Your task to perform on an android device: clear all cookies in the chrome app Image 0: 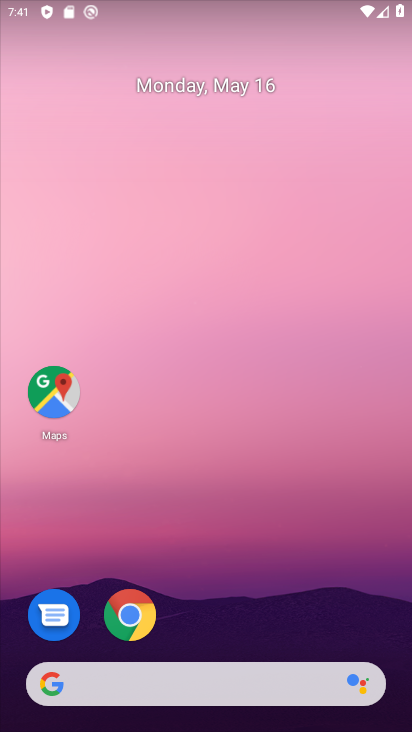
Step 0: drag from (256, 661) to (284, 45)
Your task to perform on an android device: clear all cookies in the chrome app Image 1: 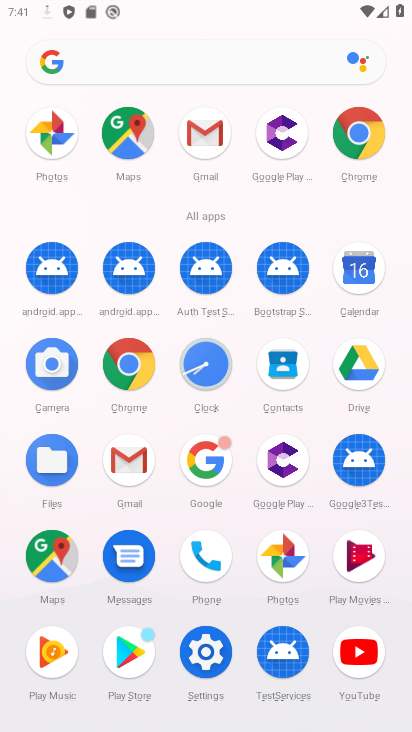
Step 1: click (141, 386)
Your task to perform on an android device: clear all cookies in the chrome app Image 2: 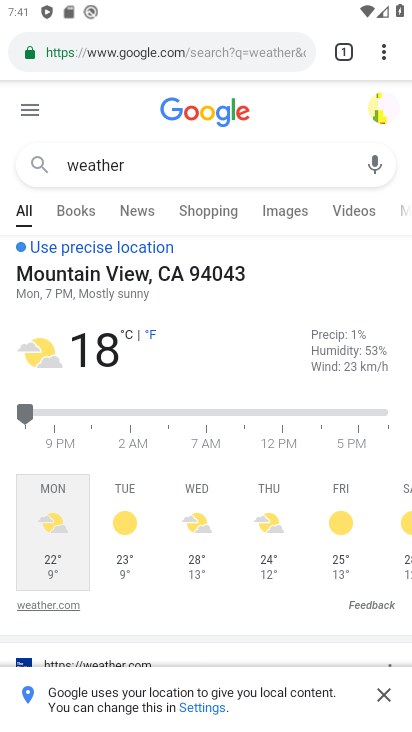
Step 2: click (382, 59)
Your task to perform on an android device: clear all cookies in the chrome app Image 3: 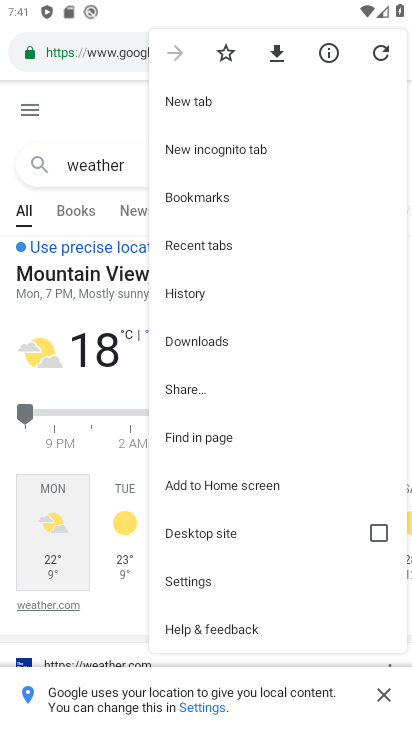
Step 3: click (221, 290)
Your task to perform on an android device: clear all cookies in the chrome app Image 4: 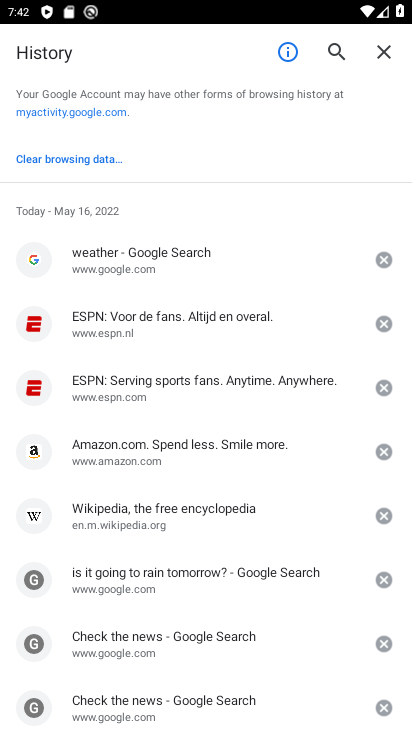
Step 4: click (83, 160)
Your task to perform on an android device: clear all cookies in the chrome app Image 5: 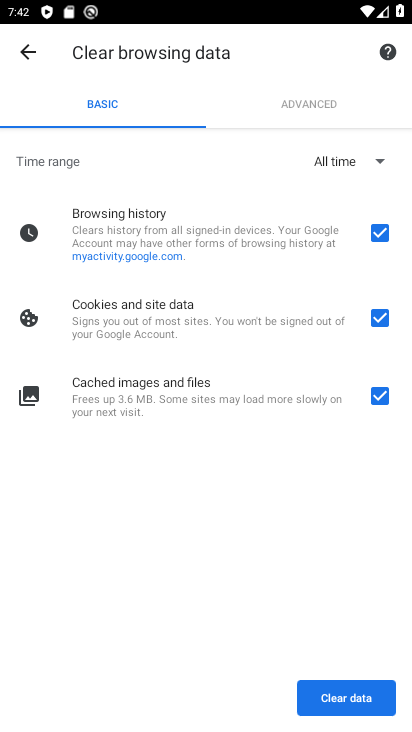
Step 5: click (376, 234)
Your task to perform on an android device: clear all cookies in the chrome app Image 6: 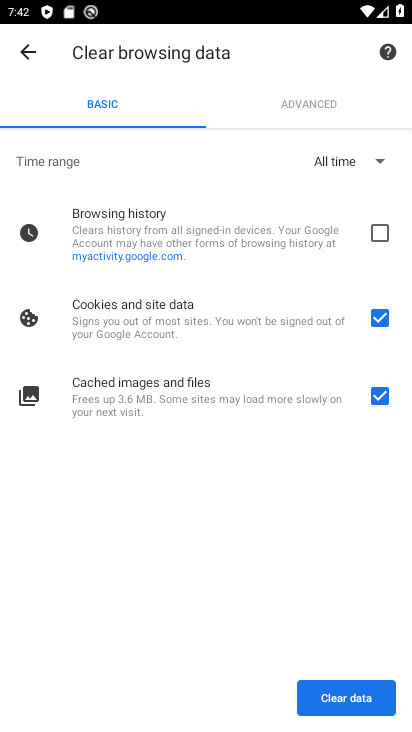
Step 6: click (379, 393)
Your task to perform on an android device: clear all cookies in the chrome app Image 7: 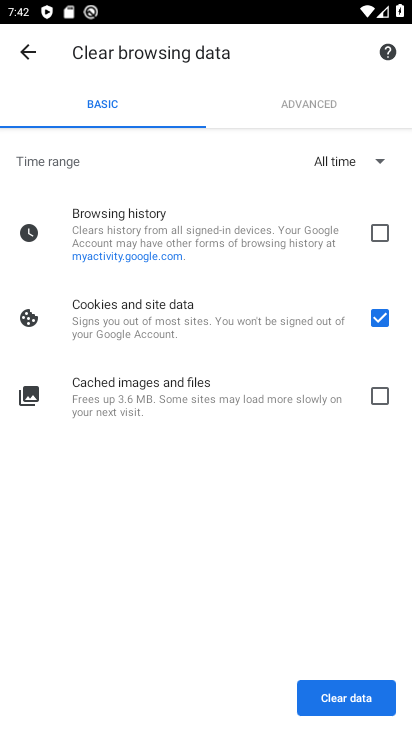
Step 7: click (357, 704)
Your task to perform on an android device: clear all cookies in the chrome app Image 8: 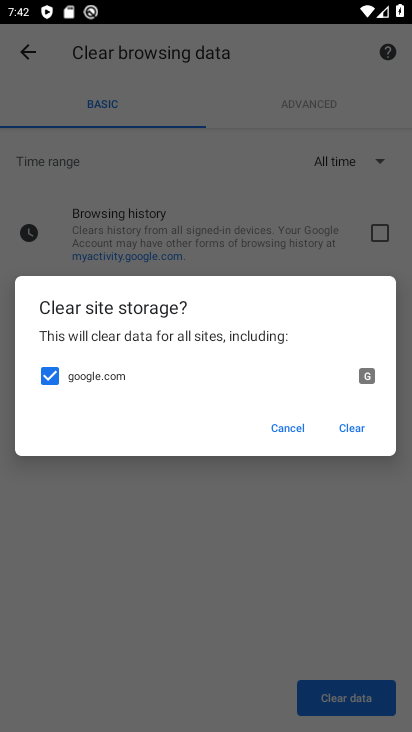
Step 8: click (353, 421)
Your task to perform on an android device: clear all cookies in the chrome app Image 9: 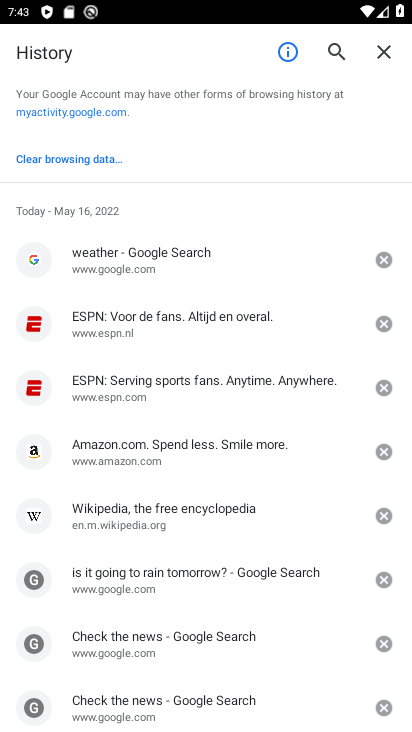
Step 9: task complete